Your task to perform on an android device: Open Google Maps Image 0: 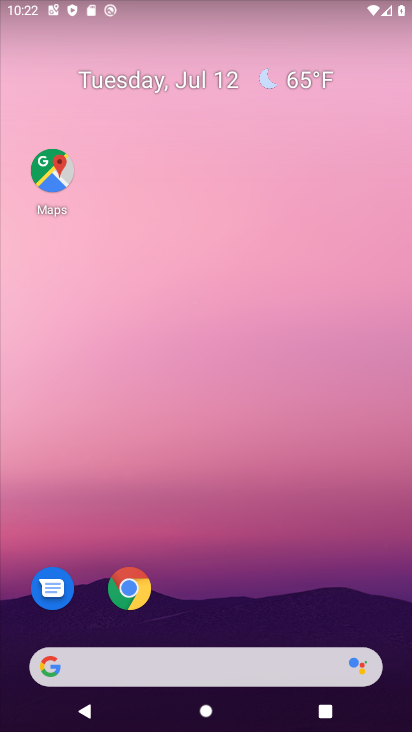
Step 0: click (43, 168)
Your task to perform on an android device: Open Google Maps Image 1: 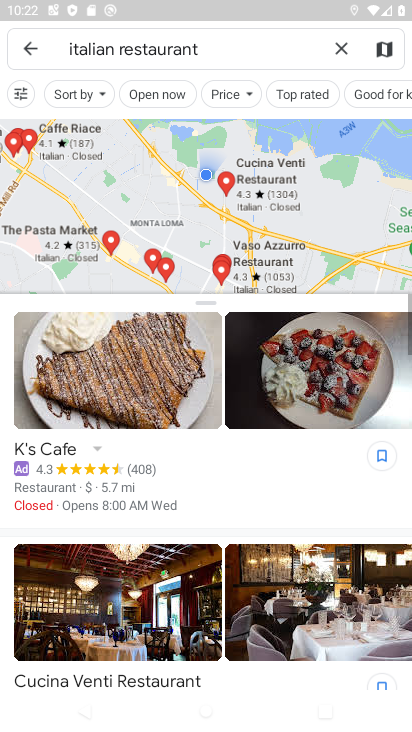
Step 1: click (35, 51)
Your task to perform on an android device: Open Google Maps Image 2: 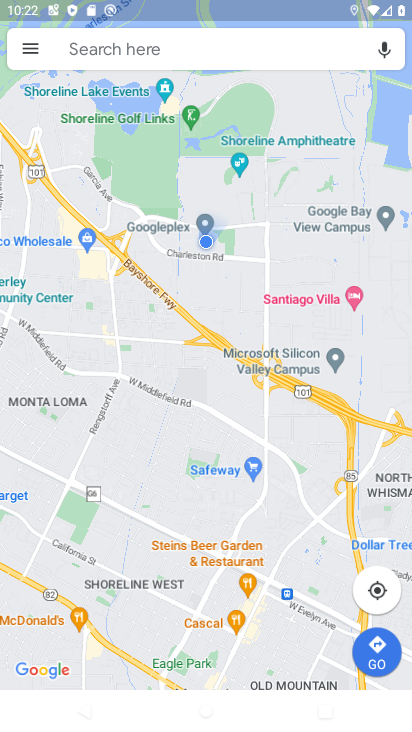
Step 2: task complete